Your task to perform on an android device: stop showing notifications on the lock screen Image 0: 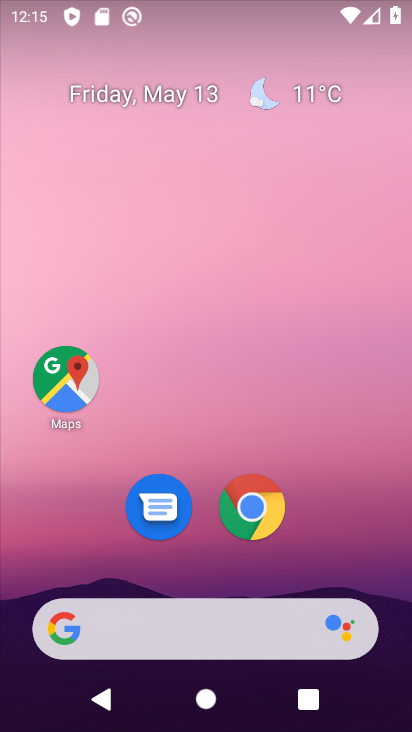
Step 0: drag from (221, 579) to (157, 26)
Your task to perform on an android device: stop showing notifications on the lock screen Image 1: 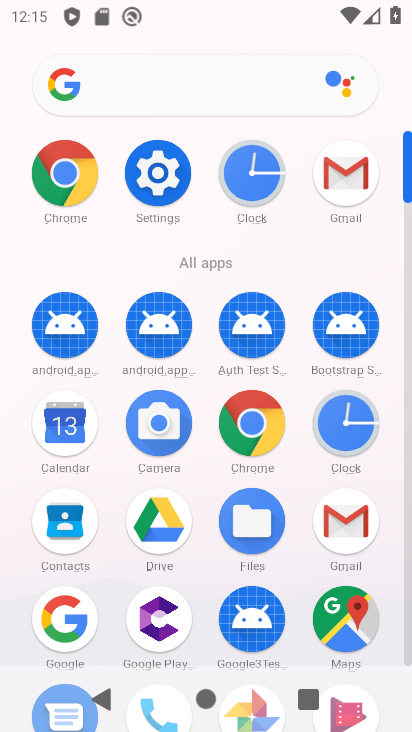
Step 1: click (168, 182)
Your task to perform on an android device: stop showing notifications on the lock screen Image 2: 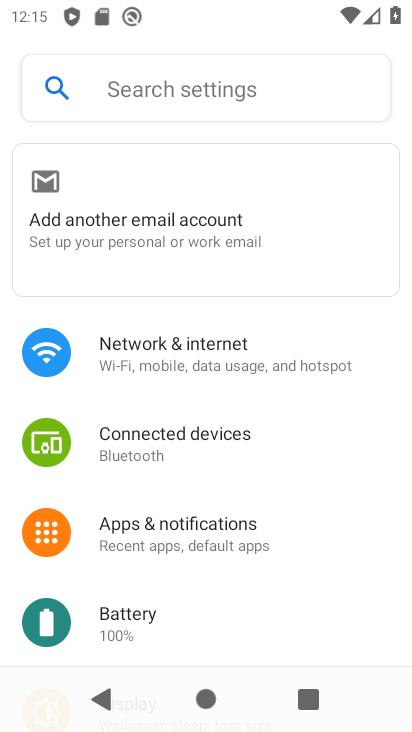
Step 2: drag from (211, 607) to (205, 535)
Your task to perform on an android device: stop showing notifications on the lock screen Image 3: 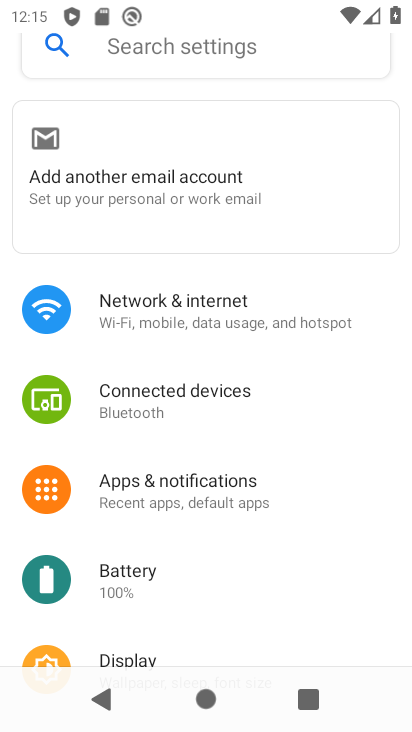
Step 3: click (181, 489)
Your task to perform on an android device: stop showing notifications on the lock screen Image 4: 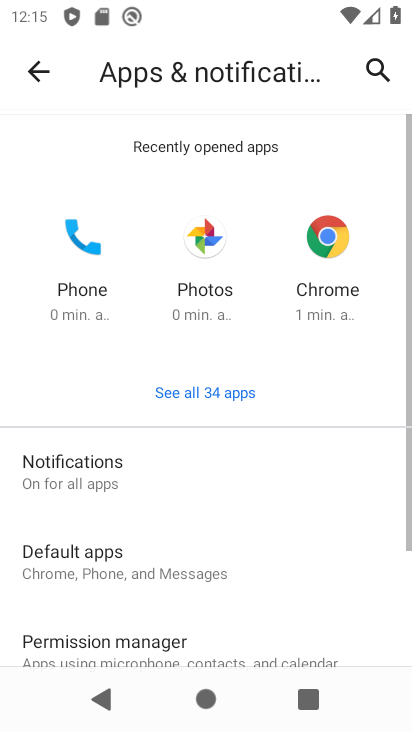
Step 4: click (104, 468)
Your task to perform on an android device: stop showing notifications on the lock screen Image 5: 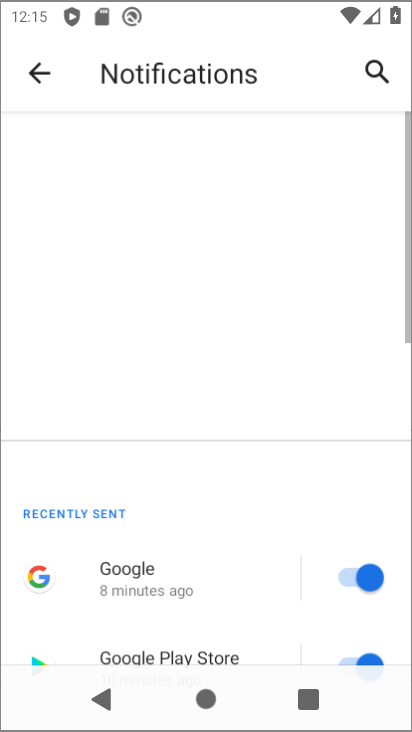
Step 5: drag from (174, 615) to (85, 82)
Your task to perform on an android device: stop showing notifications on the lock screen Image 6: 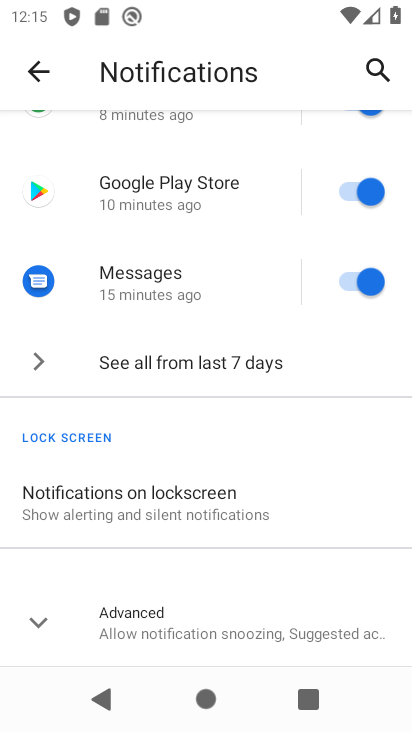
Step 6: click (141, 527)
Your task to perform on an android device: stop showing notifications on the lock screen Image 7: 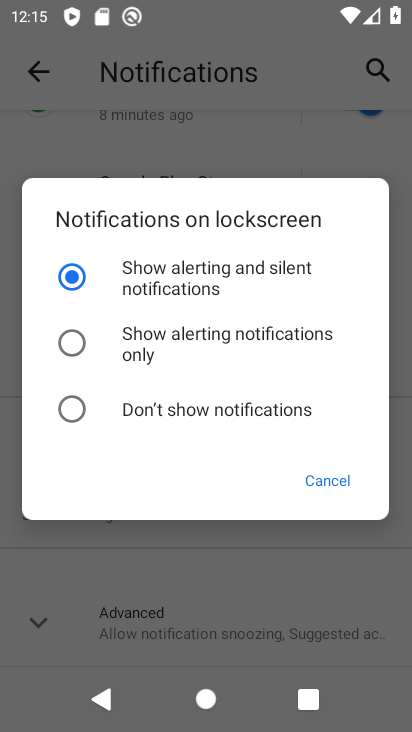
Step 7: click (131, 424)
Your task to perform on an android device: stop showing notifications on the lock screen Image 8: 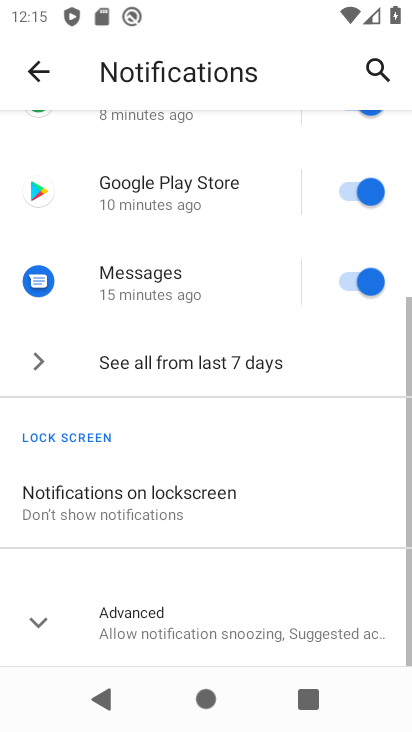
Step 8: task complete